Your task to perform on an android device: Go to ESPN.com Image 0: 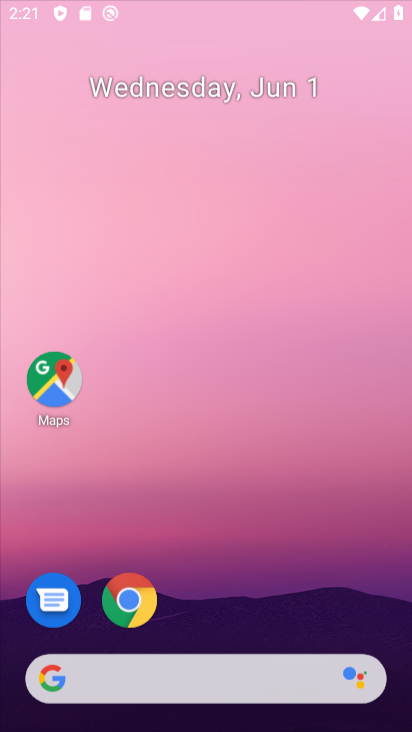
Step 0: drag from (251, 644) to (208, 279)
Your task to perform on an android device: Go to ESPN.com Image 1: 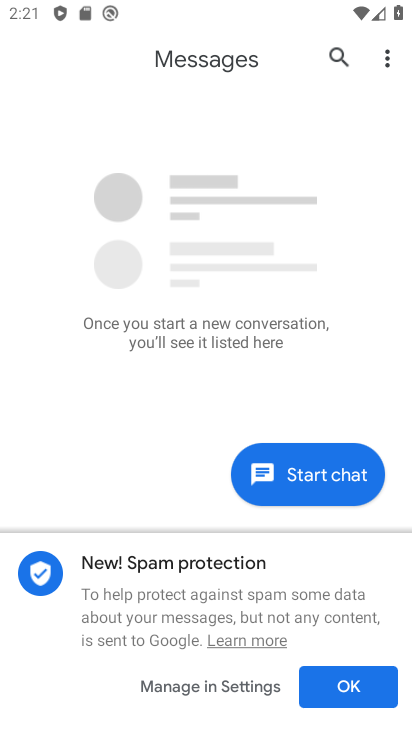
Step 1: press back button
Your task to perform on an android device: Go to ESPN.com Image 2: 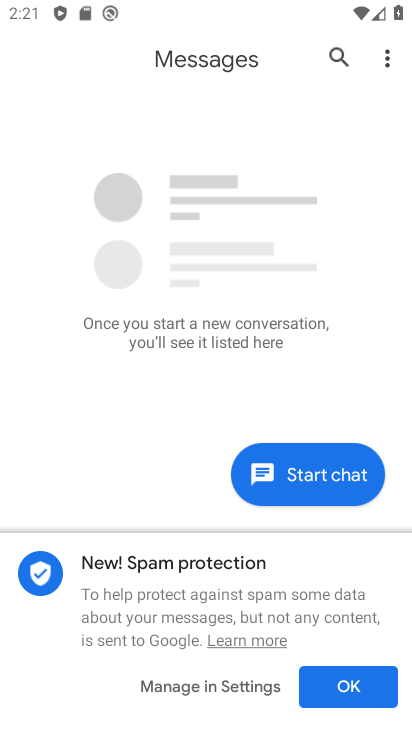
Step 2: press back button
Your task to perform on an android device: Go to ESPN.com Image 3: 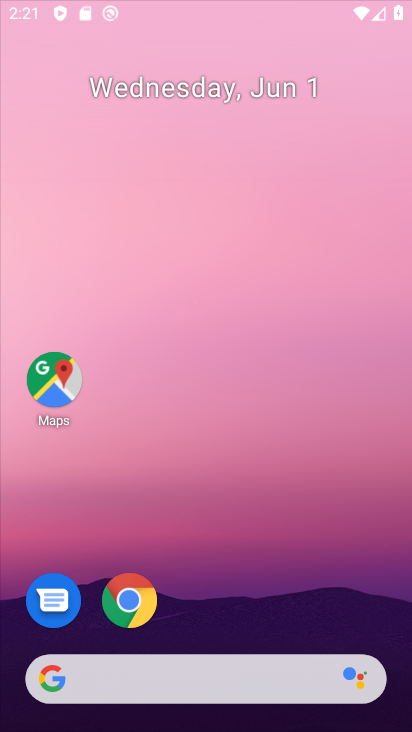
Step 3: press back button
Your task to perform on an android device: Go to ESPN.com Image 4: 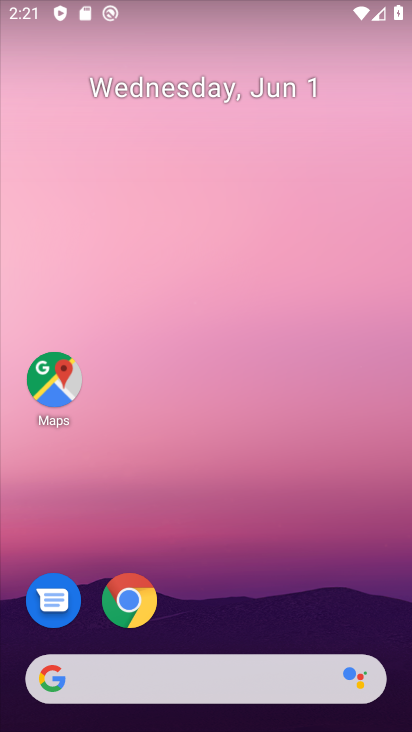
Step 4: click (287, 215)
Your task to perform on an android device: Go to ESPN.com Image 5: 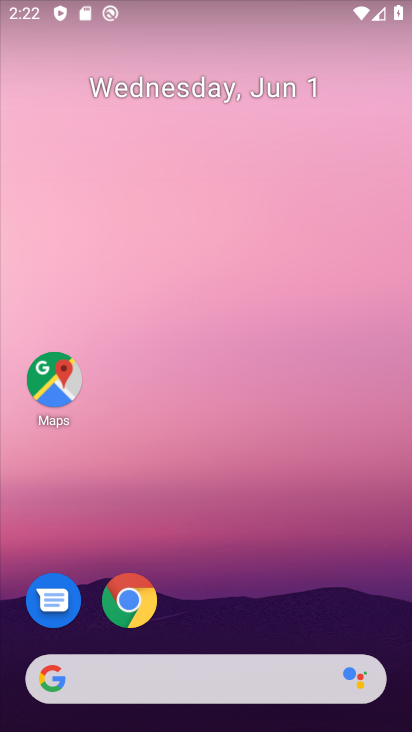
Step 5: click (246, 82)
Your task to perform on an android device: Go to ESPN.com Image 6: 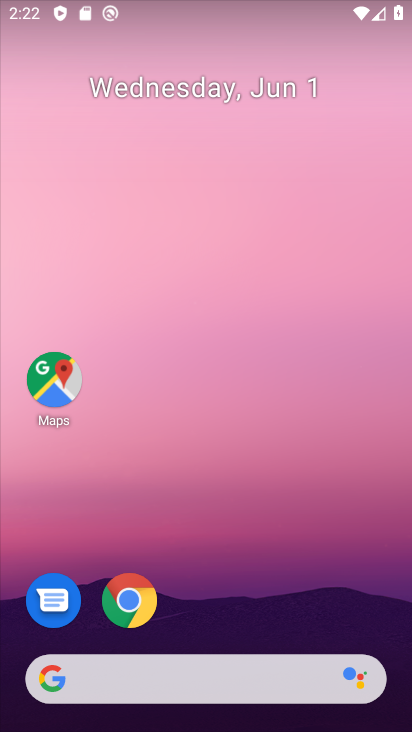
Step 6: drag from (294, 682) to (205, 297)
Your task to perform on an android device: Go to ESPN.com Image 7: 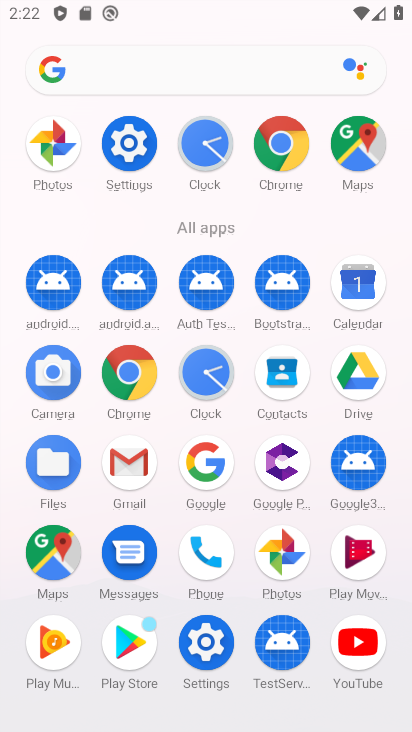
Step 7: click (287, 148)
Your task to perform on an android device: Go to ESPN.com Image 8: 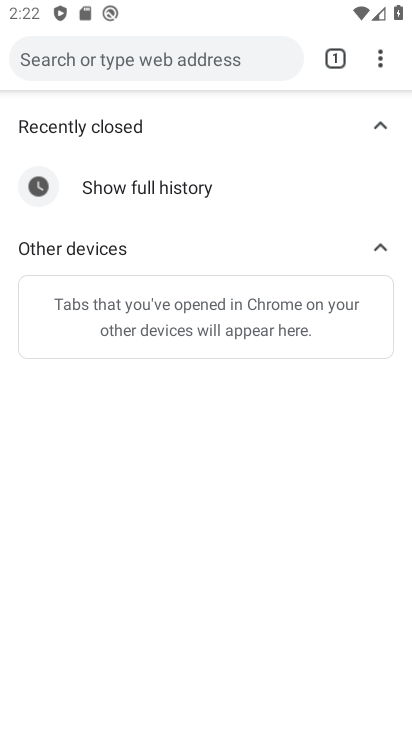
Step 8: drag from (381, 65) to (362, 160)
Your task to perform on an android device: Go to ESPN.com Image 9: 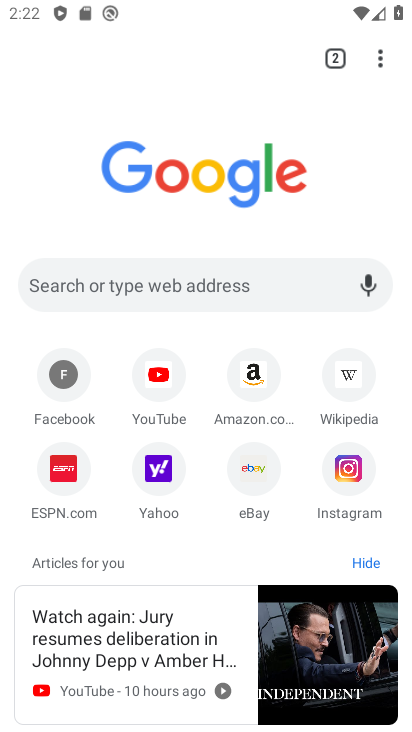
Step 9: click (164, 177)
Your task to perform on an android device: Go to ESPN.com Image 10: 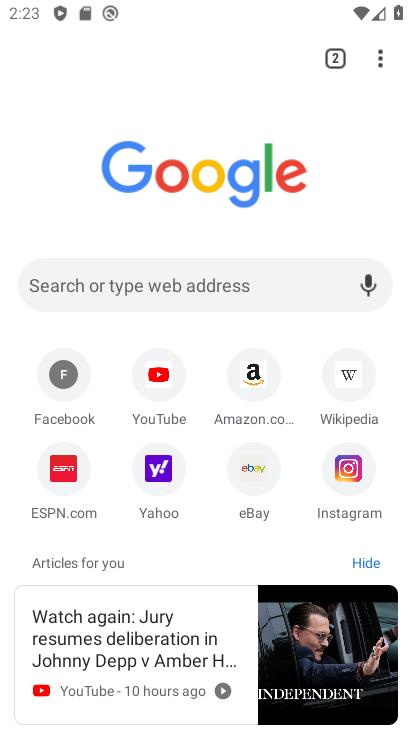
Step 10: click (70, 477)
Your task to perform on an android device: Go to ESPN.com Image 11: 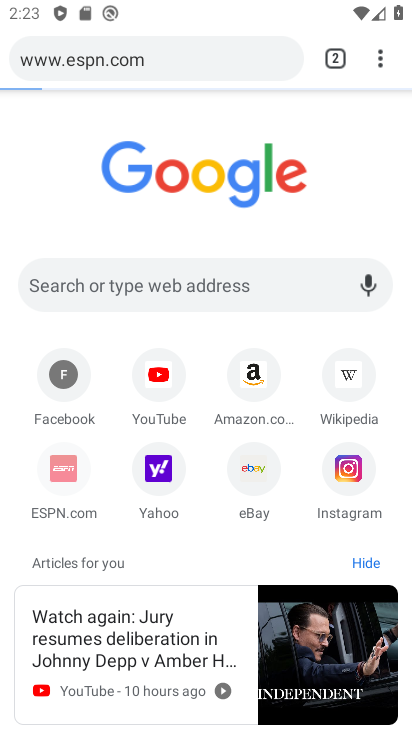
Step 11: click (69, 477)
Your task to perform on an android device: Go to ESPN.com Image 12: 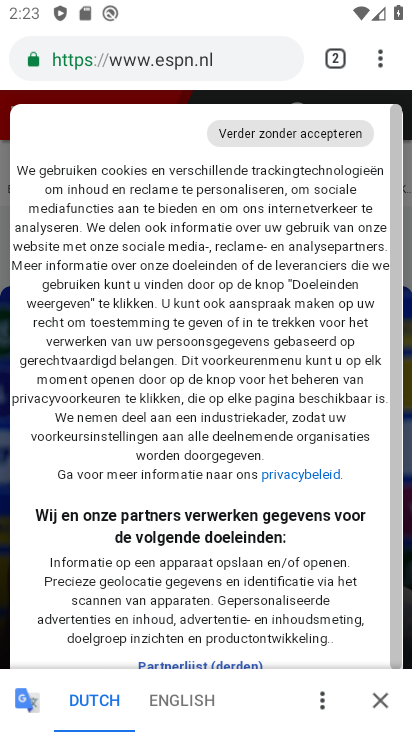
Step 12: task complete